Your task to perform on an android device: Open the phone app and click the voicemail tab. Image 0: 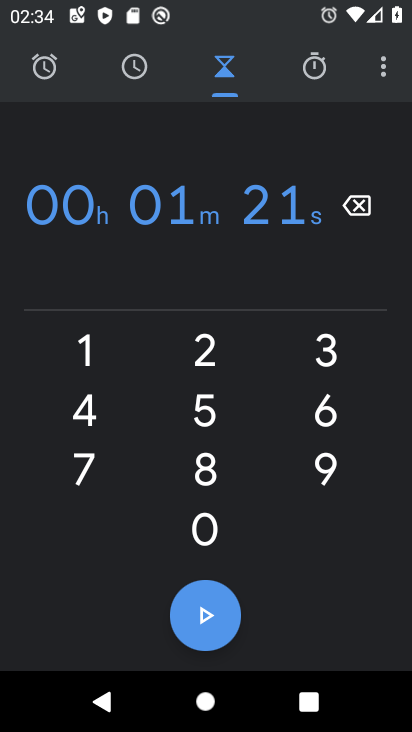
Step 0: press home button
Your task to perform on an android device: Open the phone app and click the voicemail tab. Image 1: 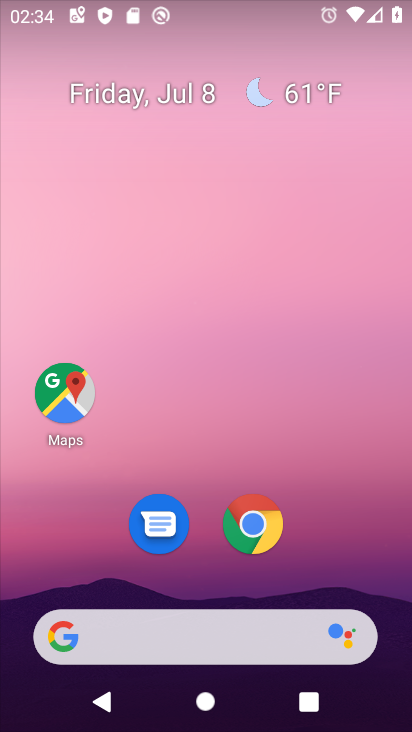
Step 1: drag from (303, 567) to (352, 37)
Your task to perform on an android device: Open the phone app and click the voicemail tab. Image 2: 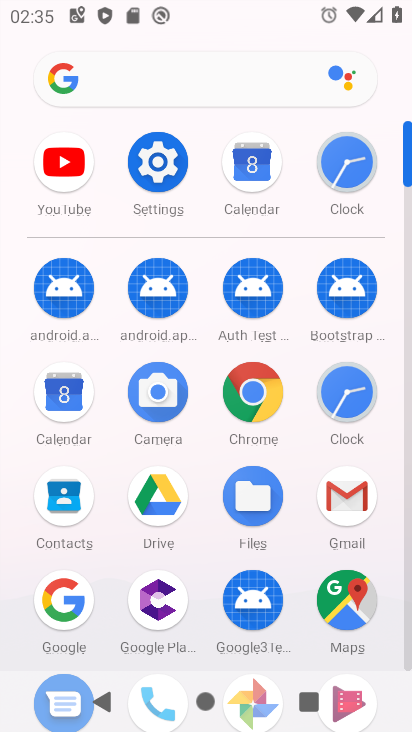
Step 2: drag from (223, 544) to (239, 416)
Your task to perform on an android device: Open the phone app and click the voicemail tab. Image 3: 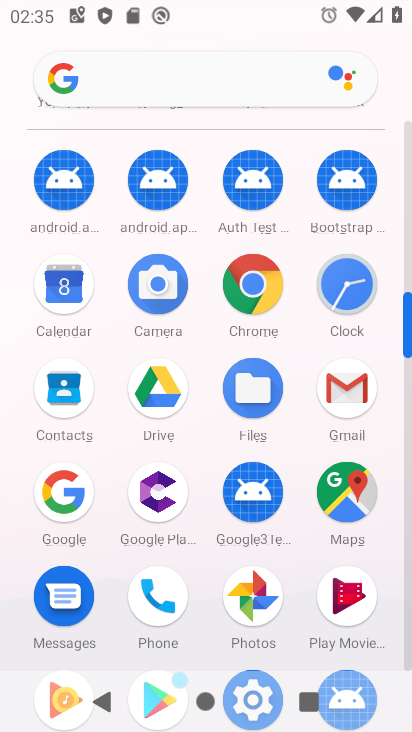
Step 3: drag from (207, 521) to (203, 395)
Your task to perform on an android device: Open the phone app and click the voicemail tab. Image 4: 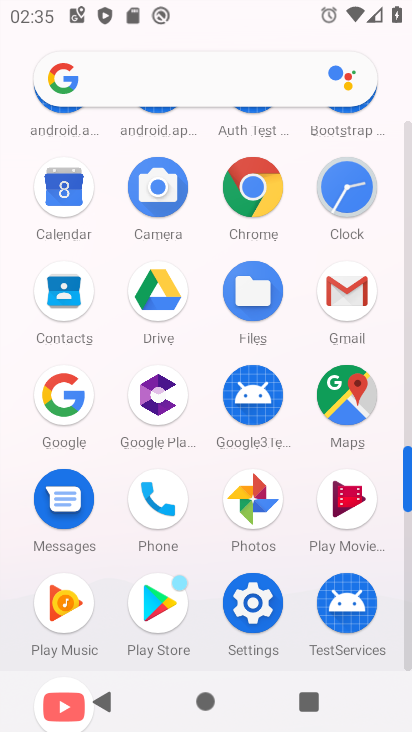
Step 4: drag from (199, 203) to (206, 410)
Your task to perform on an android device: Open the phone app and click the voicemail tab. Image 5: 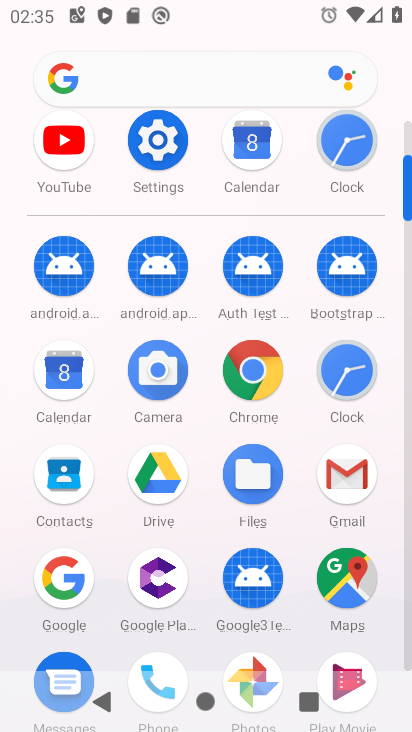
Step 5: drag from (209, 528) to (204, 291)
Your task to perform on an android device: Open the phone app and click the voicemail tab. Image 6: 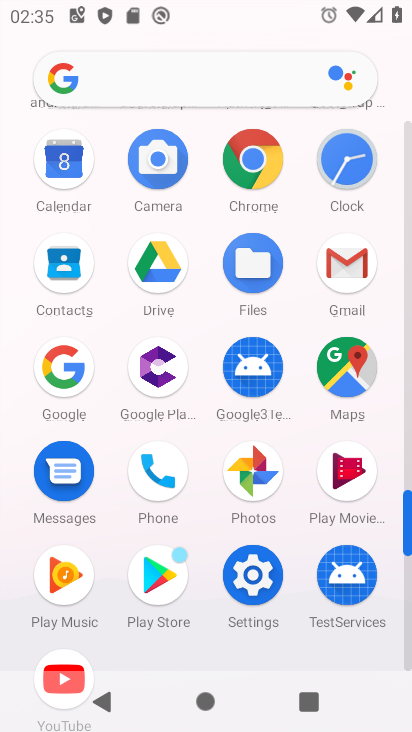
Step 6: drag from (208, 227) to (227, 423)
Your task to perform on an android device: Open the phone app and click the voicemail tab. Image 7: 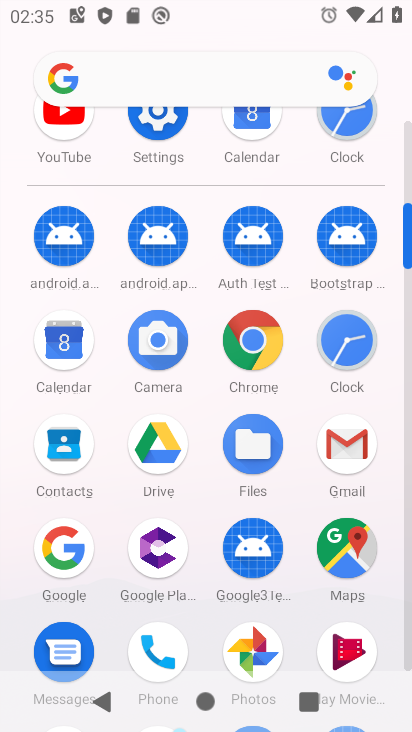
Step 7: click (166, 640)
Your task to perform on an android device: Open the phone app and click the voicemail tab. Image 8: 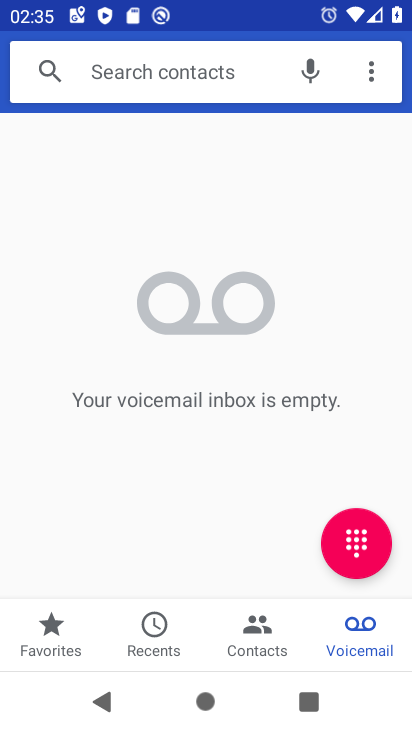
Step 8: click (375, 642)
Your task to perform on an android device: Open the phone app and click the voicemail tab. Image 9: 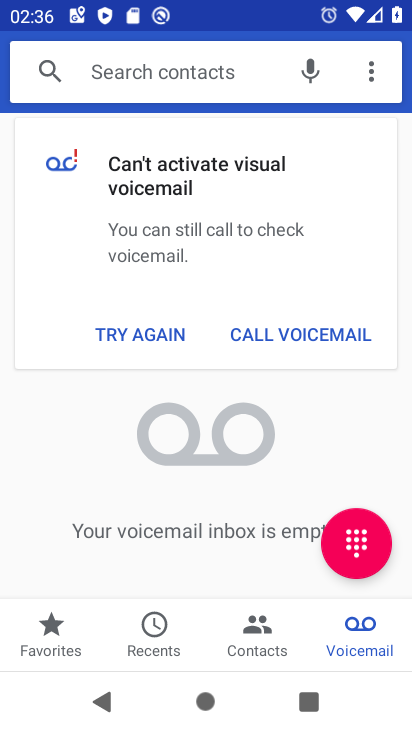
Step 9: task complete